Your task to perform on an android device: delete browsing data in the chrome app Image 0: 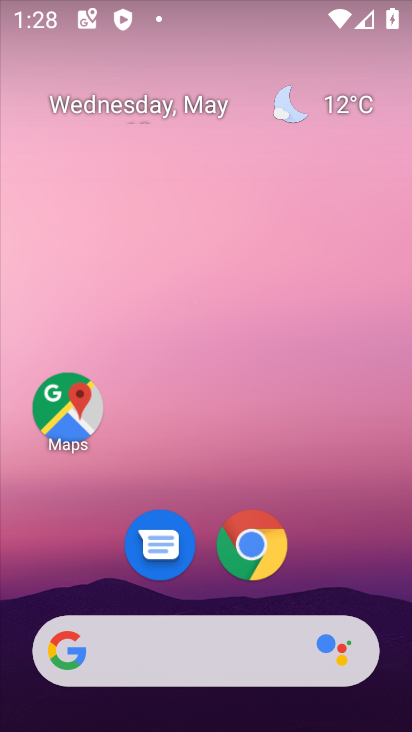
Step 0: click (262, 522)
Your task to perform on an android device: delete browsing data in the chrome app Image 1: 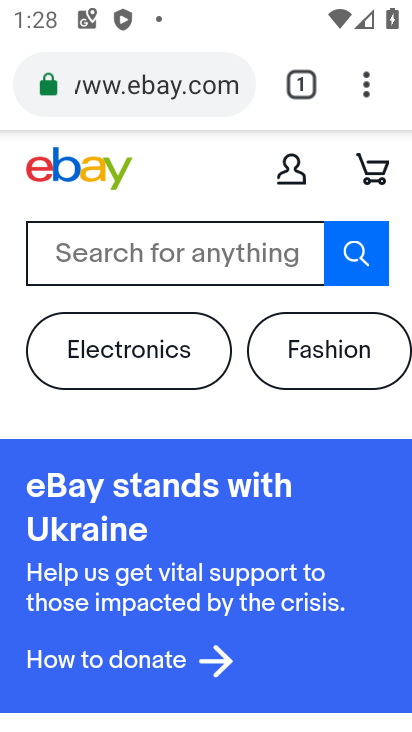
Step 1: click (372, 92)
Your task to perform on an android device: delete browsing data in the chrome app Image 2: 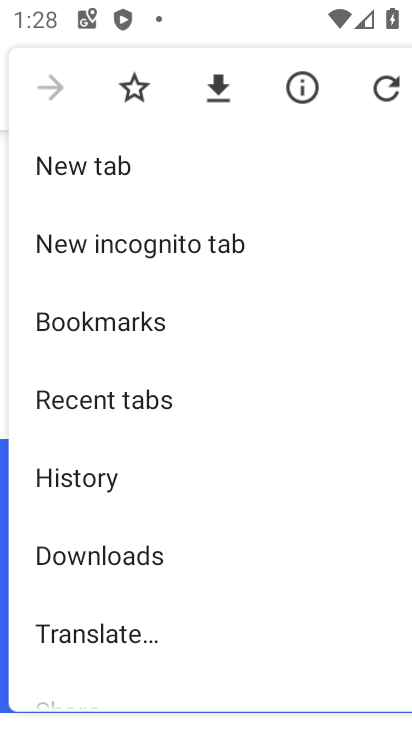
Step 2: click (130, 472)
Your task to perform on an android device: delete browsing data in the chrome app Image 3: 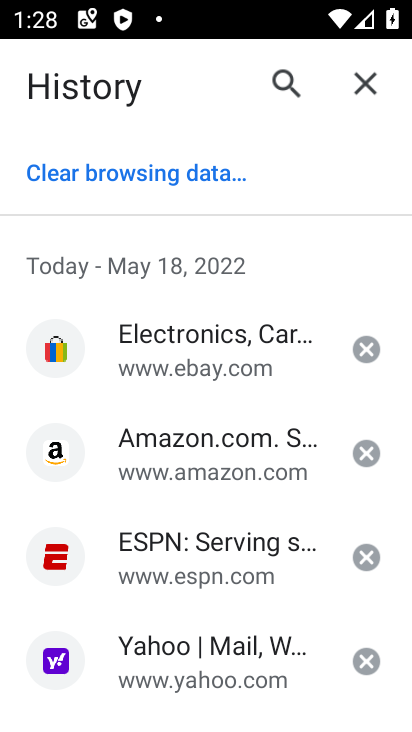
Step 3: click (149, 159)
Your task to perform on an android device: delete browsing data in the chrome app Image 4: 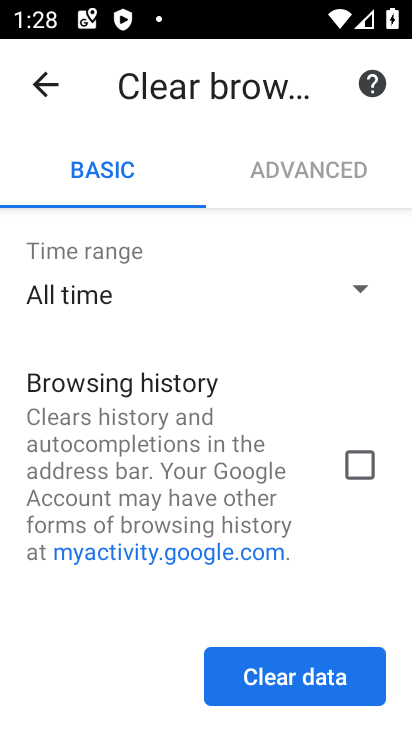
Step 4: click (357, 472)
Your task to perform on an android device: delete browsing data in the chrome app Image 5: 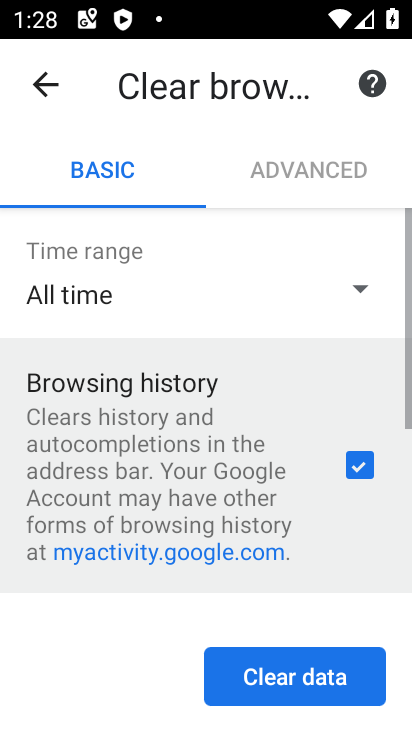
Step 5: drag from (324, 481) to (293, 232)
Your task to perform on an android device: delete browsing data in the chrome app Image 6: 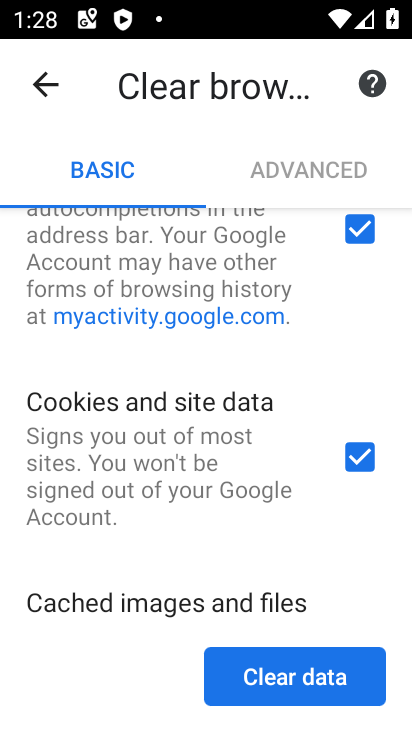
Step 6: click (364, 459)
Your task to perform on an android device: delete browsing data in the chrome app Image 7: 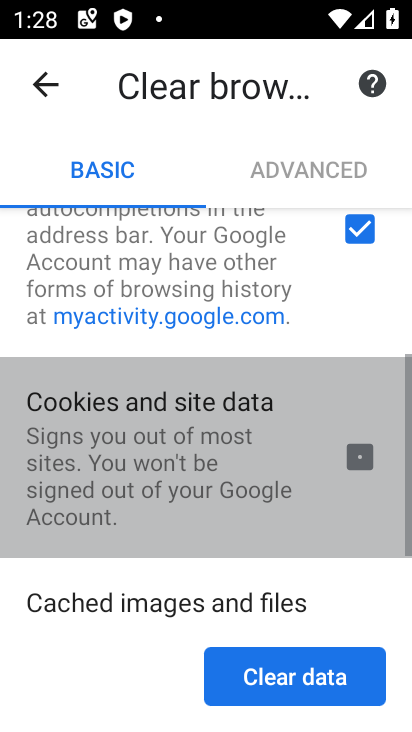
Step 7: drag from (305, 458) to (291, 239)
Your task to perform on an android device: delete browsing data in the chrome app Image 8: 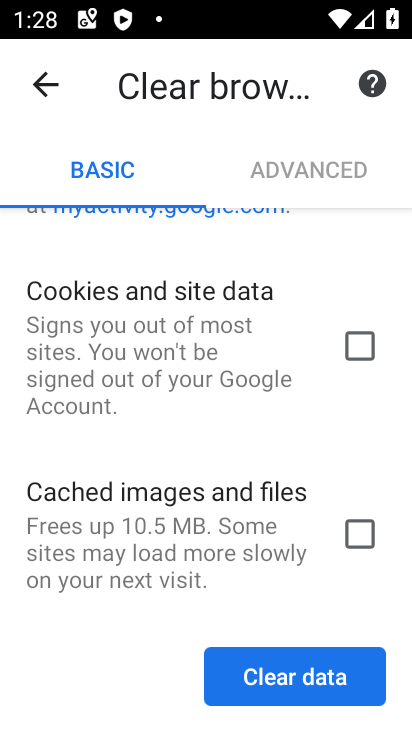
Step 8: click (328, 693)
Your task to perform on an android device: delete browsing data in the chrome app Image 9: 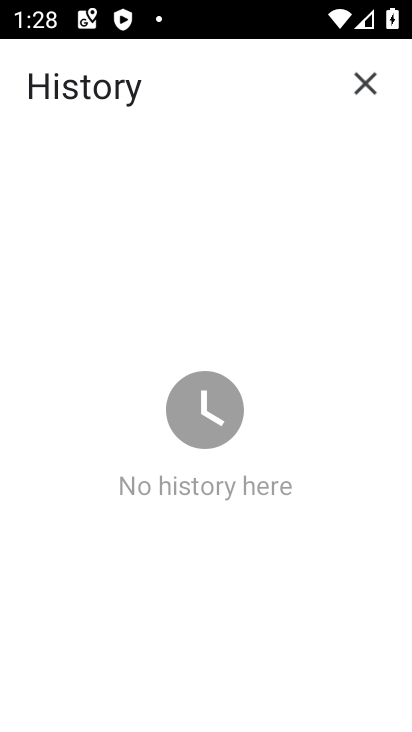
Step 9: task complete